Your task to perform on an android device: Go to CNN.com Image 0: 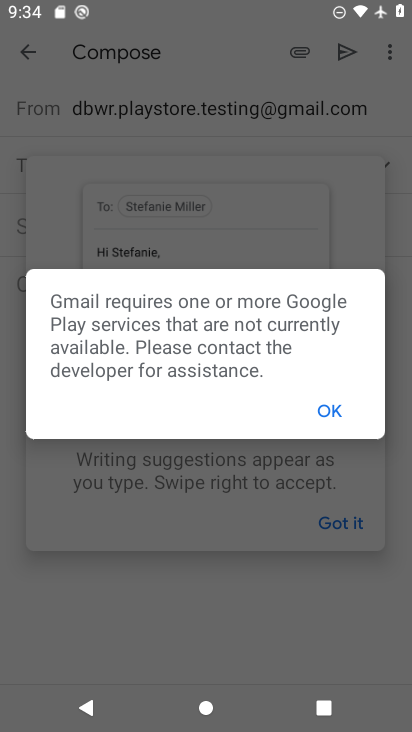
Step 0: press home button
Your task to perform on an android device: Go to CNN.com Image 1: 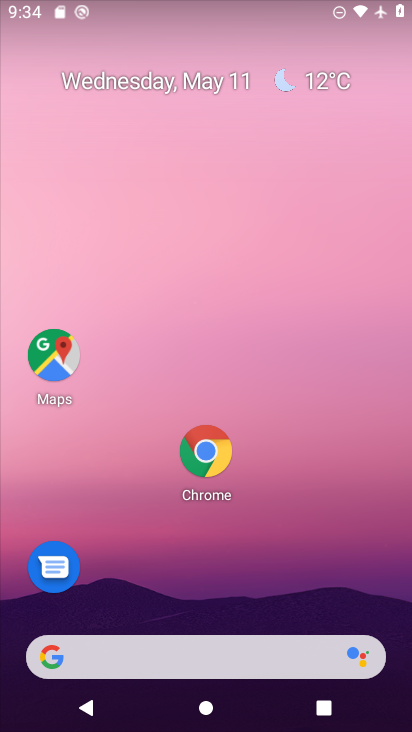
Step 1: click (214, 464)
Your task to perform on an android device: Go to CNN.com Image 2: 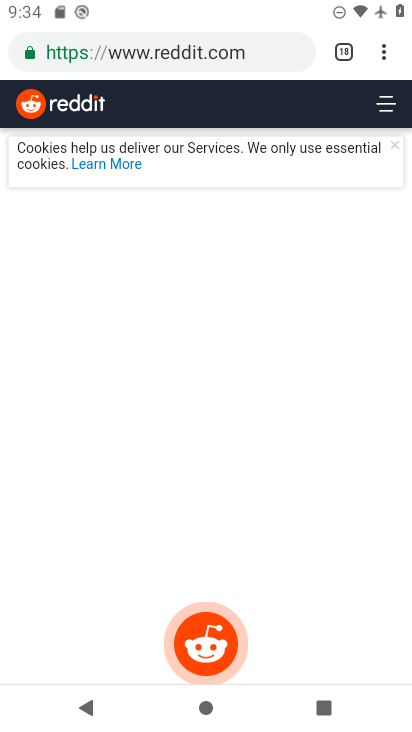
Step 2: drag from (386, 54) to (287, 105)
Your task to perform on an android device: Go to CNN.com Image 3: 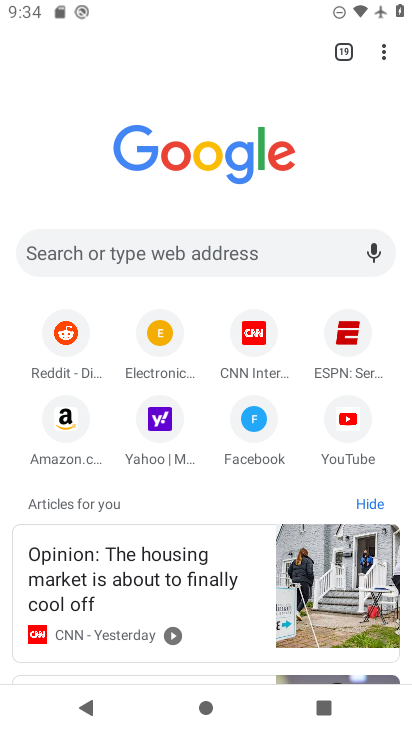
Step 3: click (107, 251)
Your task to perform on an android device: Go to CNN.com Image 4: 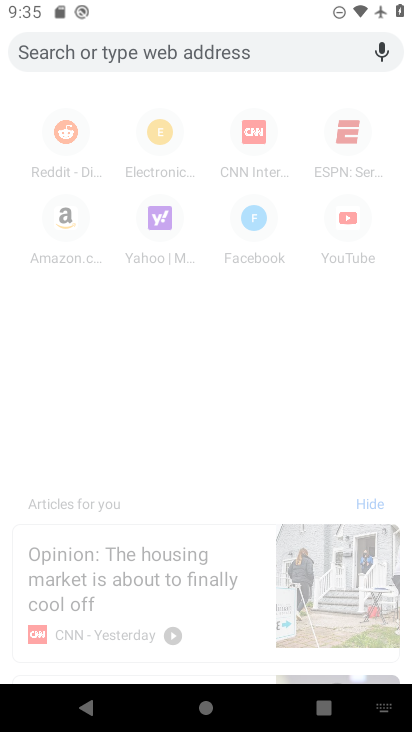
Step 4: drag from (227, 80) to (209, 441)
Your task to perform on an android device: Go to CNN.com Image 5: 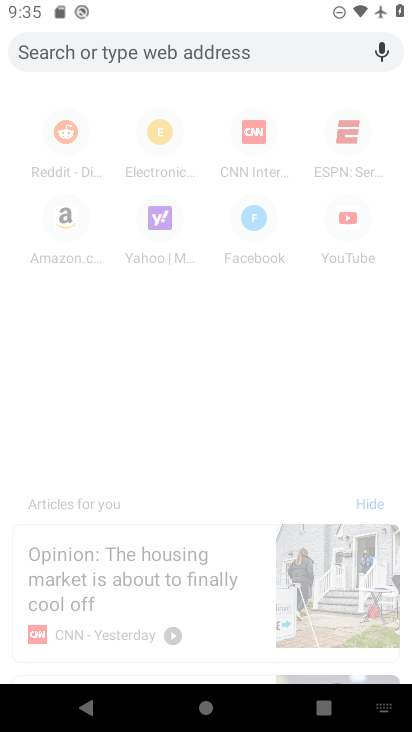
Step 5: click (261, 157)
Your task to perform on an android device: Go to CNN.com Image 6: 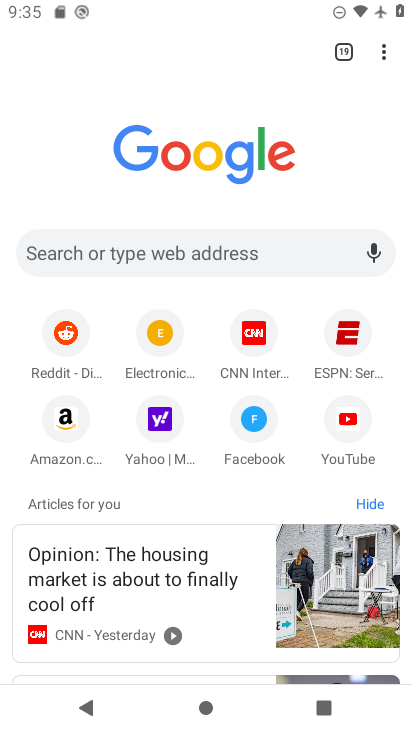
Step 6: click (252, 336)
Your task to perform on an android device: Go to CNN.com Image 7: 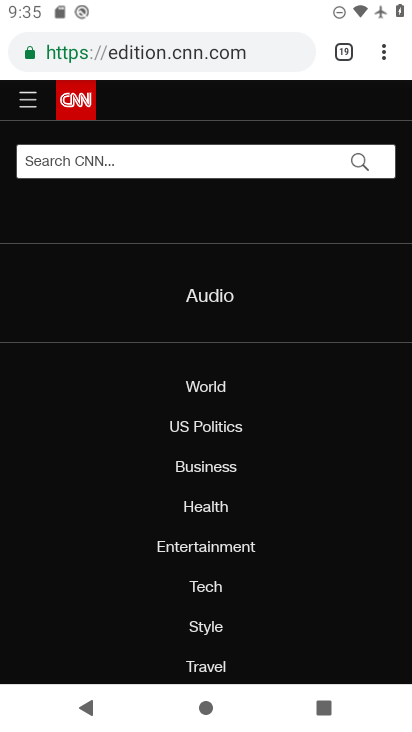
Step 7: task complete